Your task to perform on an android device: Open Android settings Image 0: 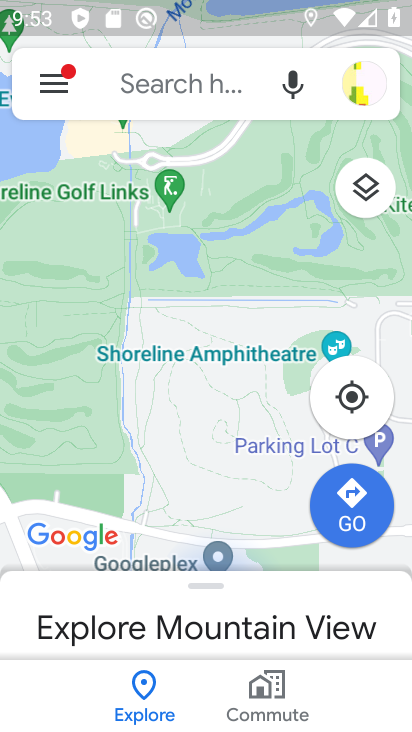
Step 0: press back button
Your task to perform on an android device: Open Android settings Image 1: 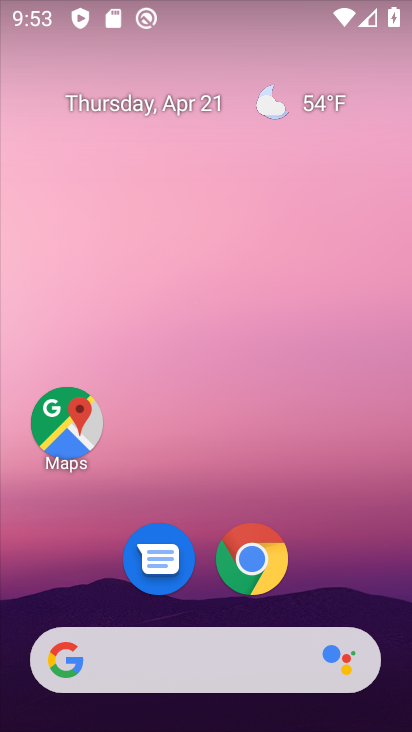
Step 1: drag from (259, 442) to (315, 2)
Your task to perform on an android device: Open Android settings Image 2: 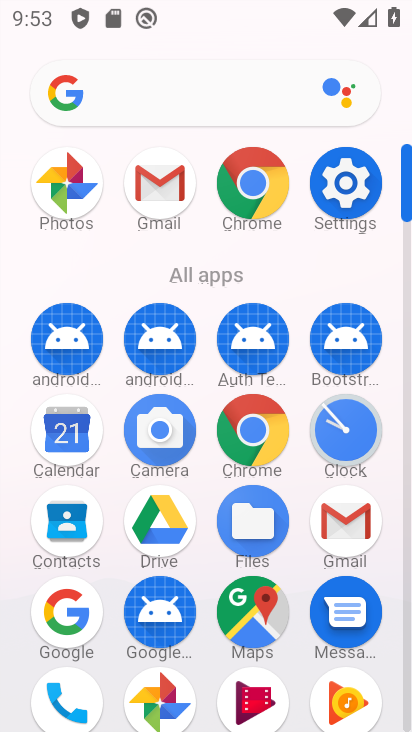
Step 2: click (341, 206)
Your task to perform on an android device: Open Android settings Image 3: 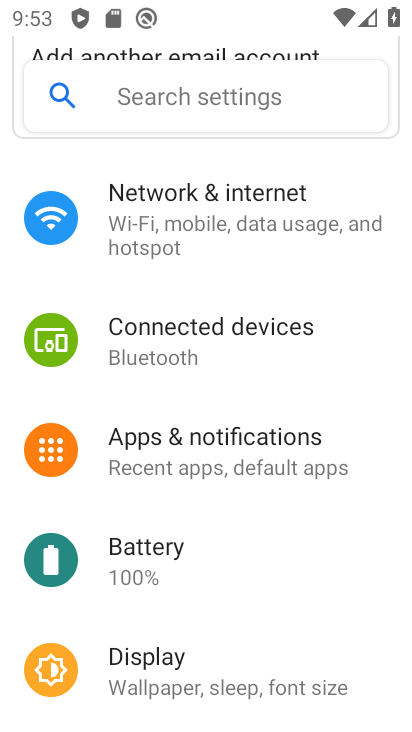
Step 3: drag from (147, 645) to (297, 141)
Your task to perform on an android device: Open Android settings Image 4: 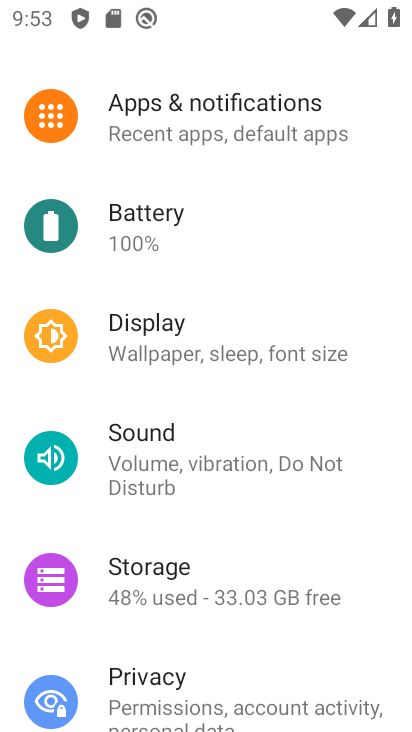
Step 4: drag from (184, 628) to (281, 130)
Your task to perform on an android device: Open Android settings Image 5: 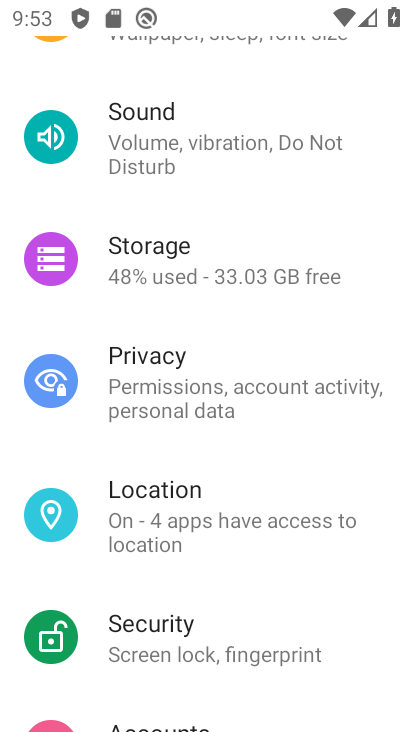
Step 5: drag from (211, 506) to (277, 115)
Your task to perform on an android device: Open Android settings Image 6: 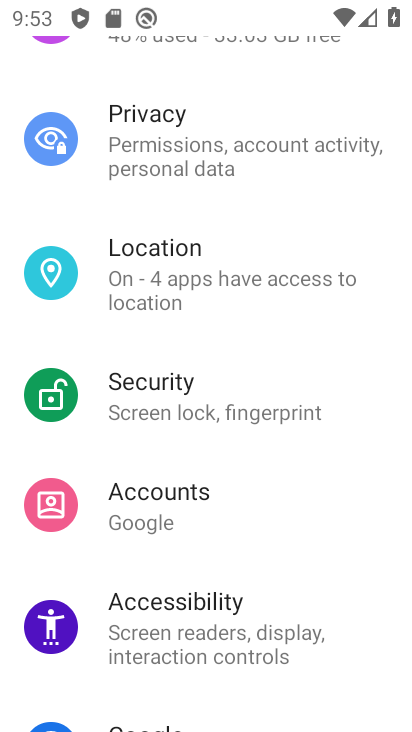
Step 6: drag from (201, 655) to (291, 147)
Your task to perform on an android device: Open Android settings Image 7: 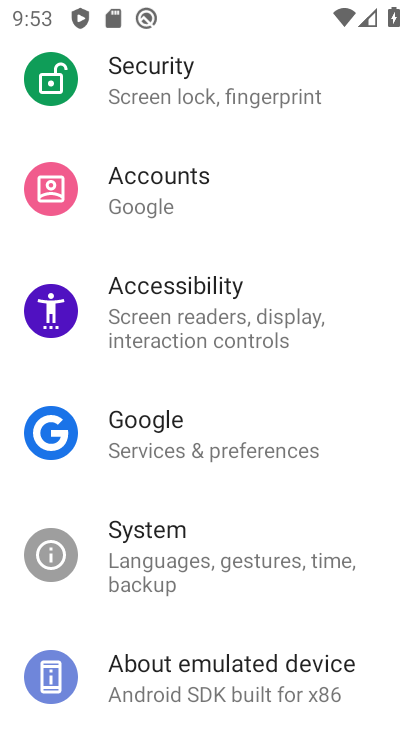
Step 7: drag from (229, 605) to (299, 270)
Your task to perform on an android device: Open Android settings Image 8: 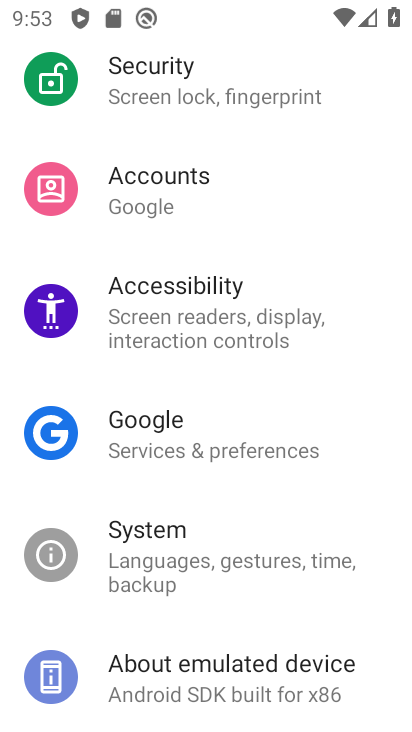
Step 8: drag from (176, 677) to (312, 90)
Your task to perform on an android device: Open Android settings Image 9: 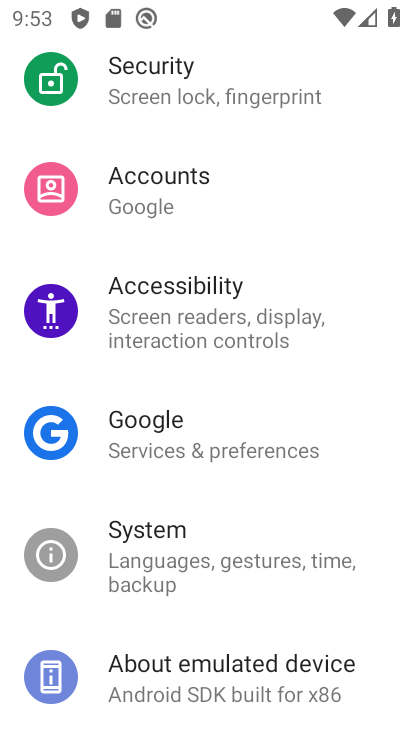
Step 9: click (211, 683)
Your task to perform on an android device: Open Android settings Image 10: 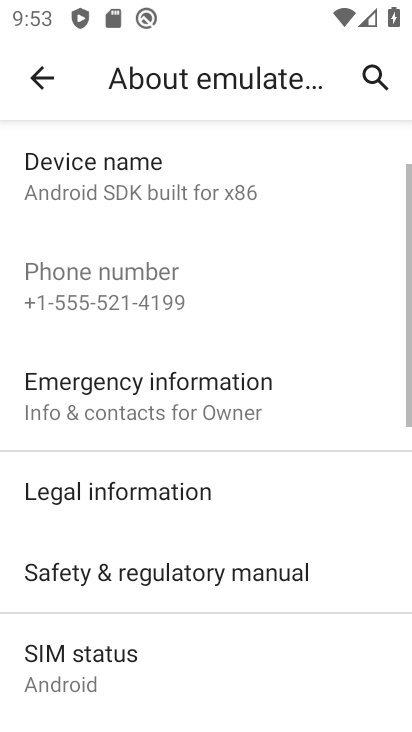
Step 10: drag from (184, 615) to (279, 262)
Your task to perform on an android device: Open Android settings Image 11: 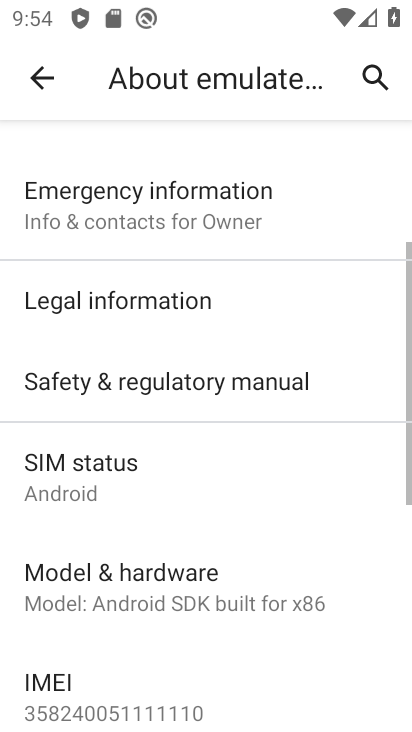
Step 11: drag from (192, 632) to (280, 102)
Your task to perform on an android device: Open Android settings Image 12: 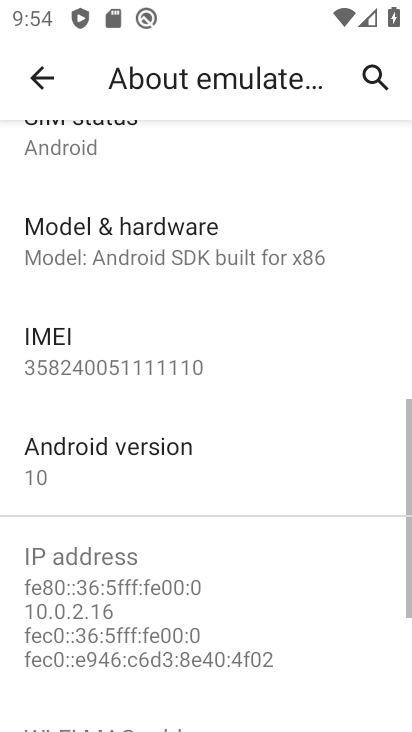
Step 12: click (139, 487)
Your task to perform on an android device: Open Android settings Image 13: 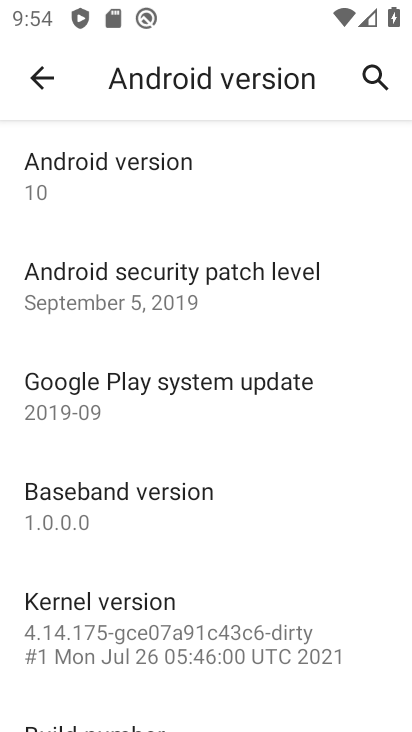
Step 13: task complete